Your task to perform on an android device: turn off location history Image 0: 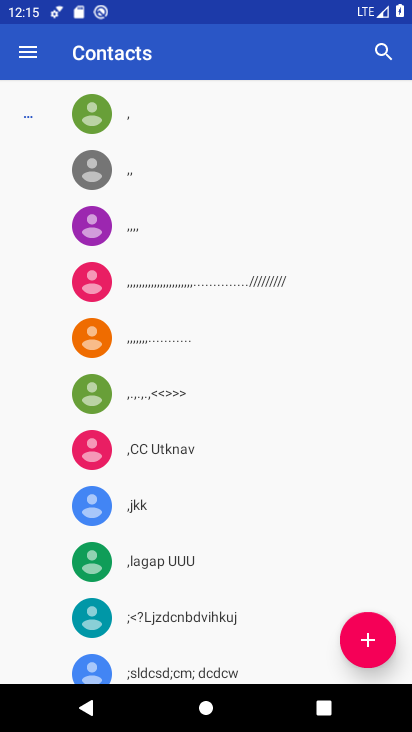
Step 0: press home button
Your task to perform on an android device: turn off location history Image 1: 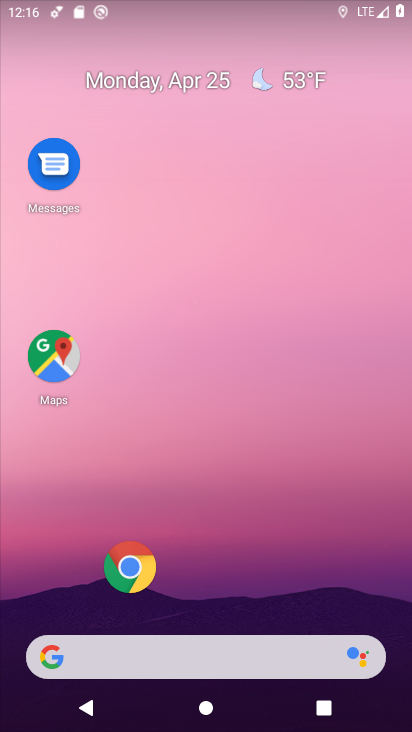
Step 1: drag from (250, 621) to (269, 36)
Your task to perform on an android device: turn off location history Image 2: 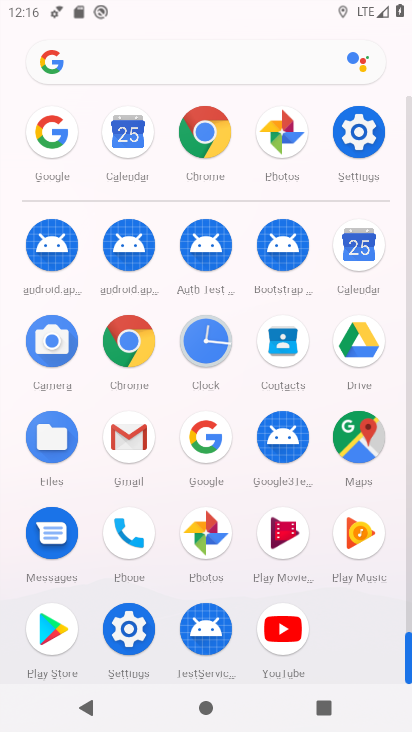
Step 2: click (348, 141)
Your task to perform on an android device: turn off location history Image 3: 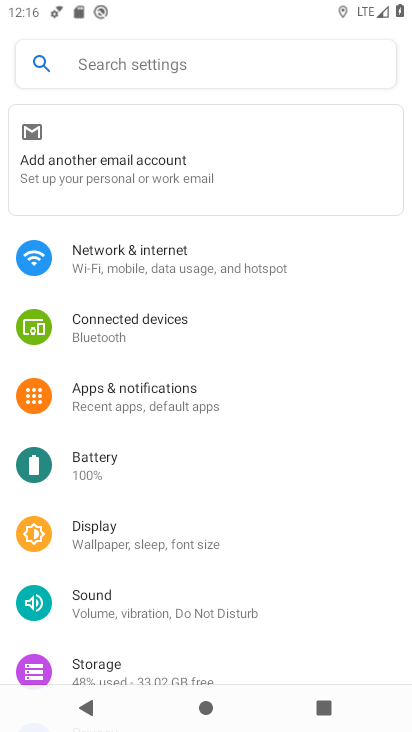
Step 3: drag from (130, 553) to (166, 270)
Your task to perform on an android device: turn off location history Image 4: 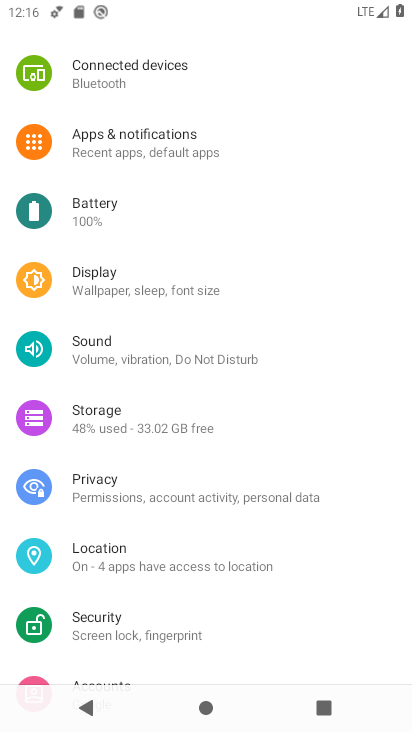
Step 4: click (170, 547)
Your task to perform on an android device: turn off location history Image 5: 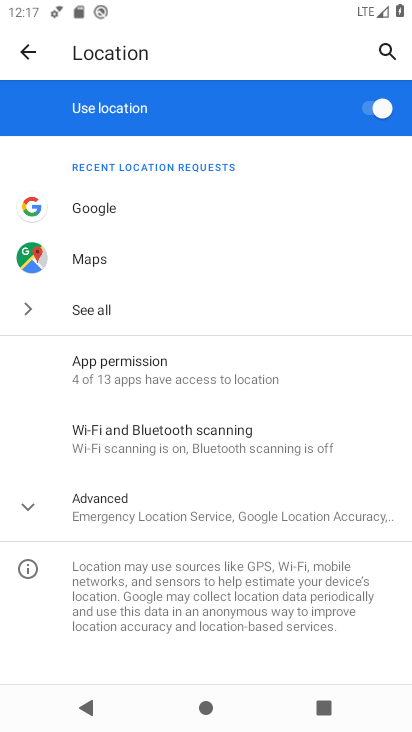
Step 5: drag from (194, 461) to (239, 206)
Your task to perform on an android device: turn off location history Image 6: 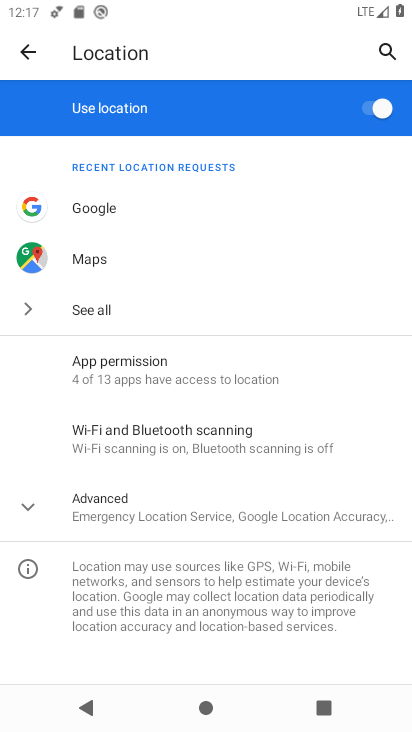
Step 6: click (224, 508)
Your task to perform on an android device: turn off location history Image 7: 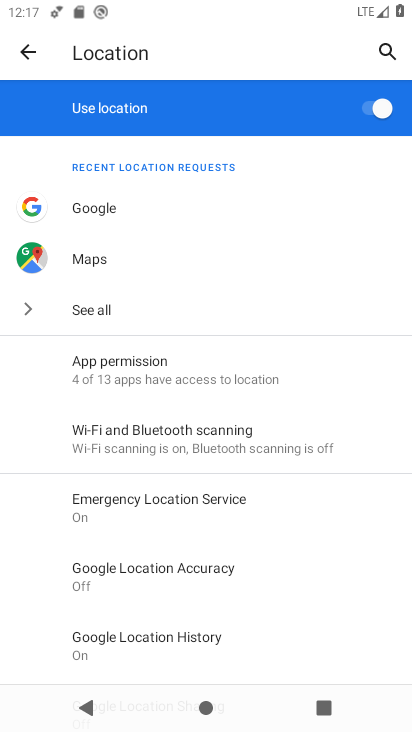
Step 7: drag from (198, 617) to (261, 260)
Your task to perform on an android device: turn off location history Image 8: 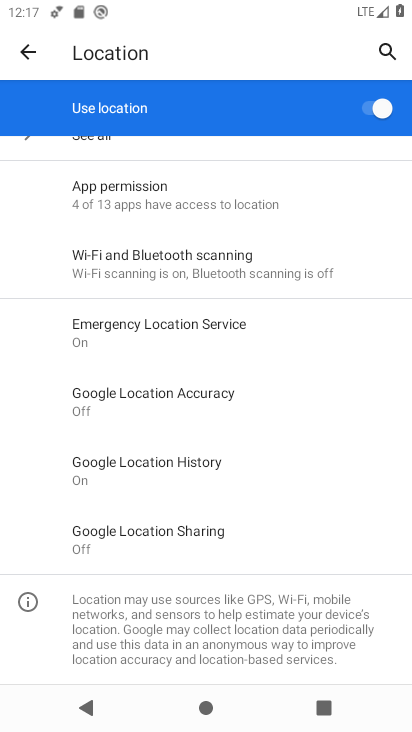
Step 8: click (228, 479)
Your task to perform on an android device: turn off location history Image 9: 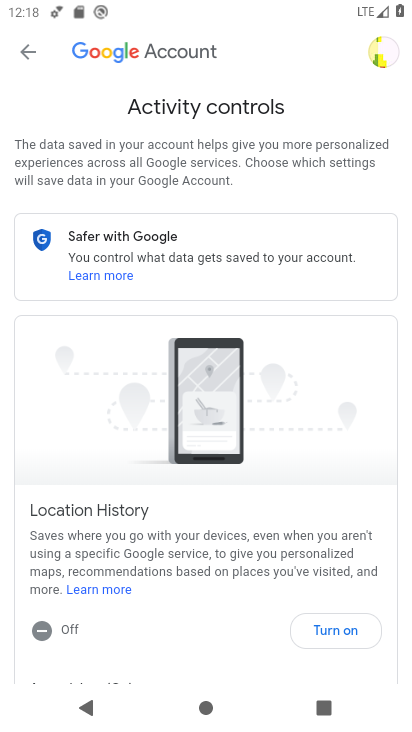
Step 9: task complete